Your task to perform on an android device: Open settings on Google Maps Image 0: 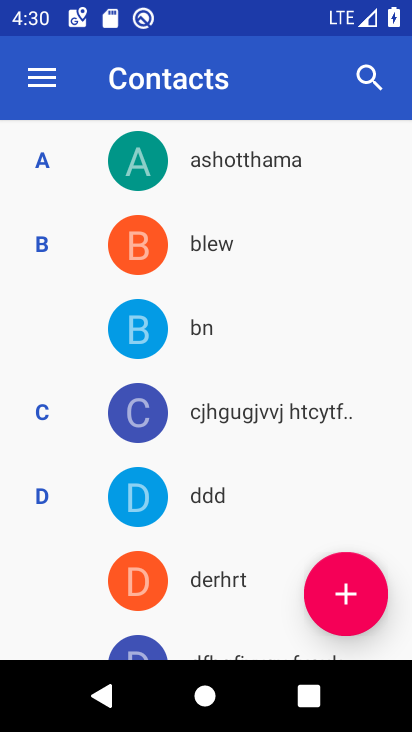
Step 0: press back button
Your task to perform on an android device: Open settings on Google Maps Image 1: 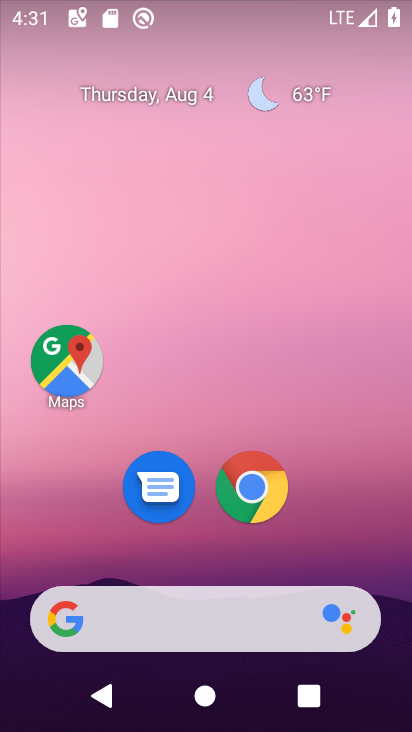
Step 1: click (73, 364)
Your task to perform on an android device: Open settings on Google Maps Image 2: 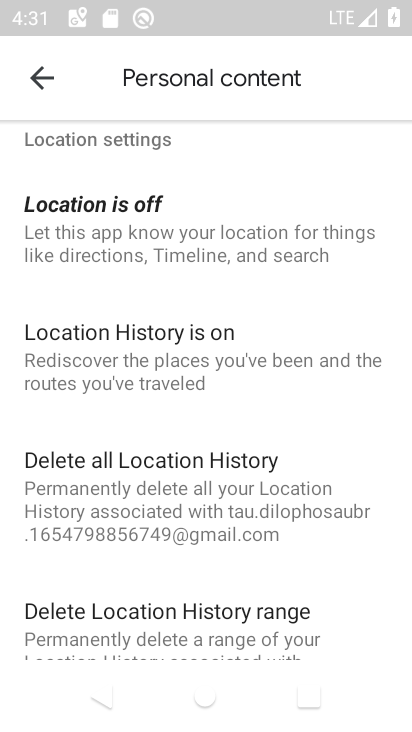
Step 2: task complete